Your task to perform on an android device: open wifi settings Image 0: 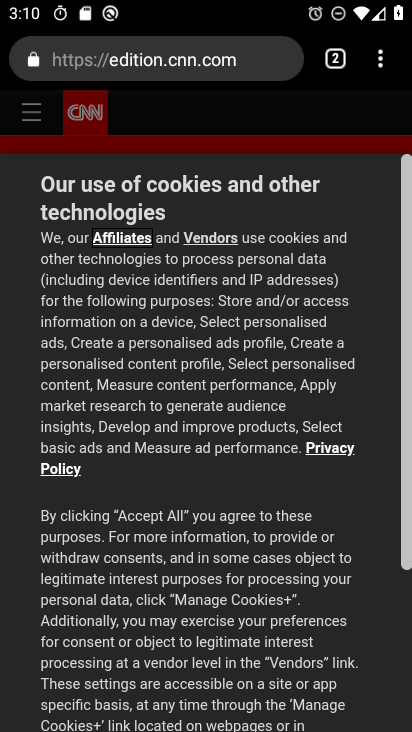
Step 0: press home button
Your task to perform on an android device: open wifi settings Image 1: 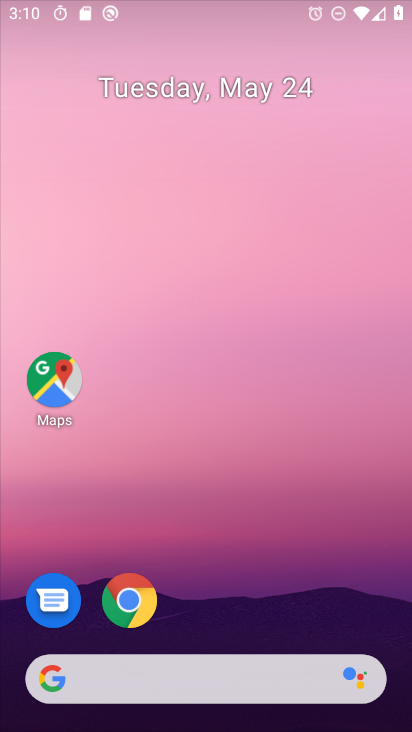
Step 1: drag from (251, 581) to (279, 63)
Your task to perform on an android device: open wifi settings Image 2: 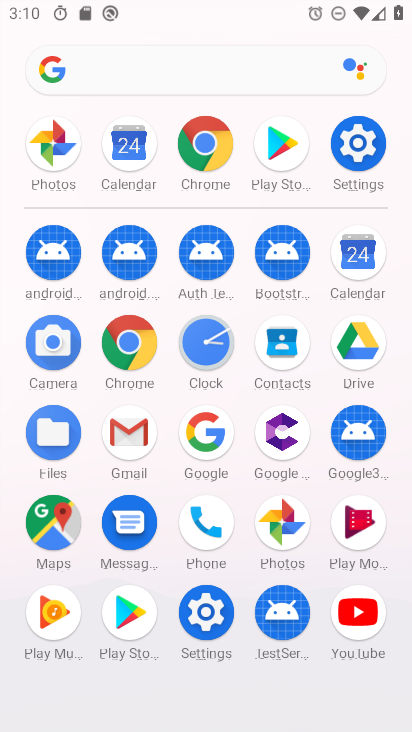
Step 2: click (372, 146)
Your task to perform on an android device: open wifi settings Image 3: 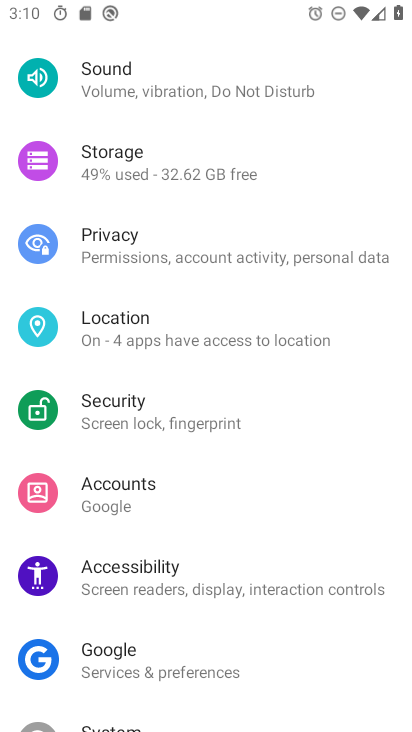
Step 3: drag from (160, 129) to (111, 677)
Your task to perform on an android device: open wifi settings Image 4: 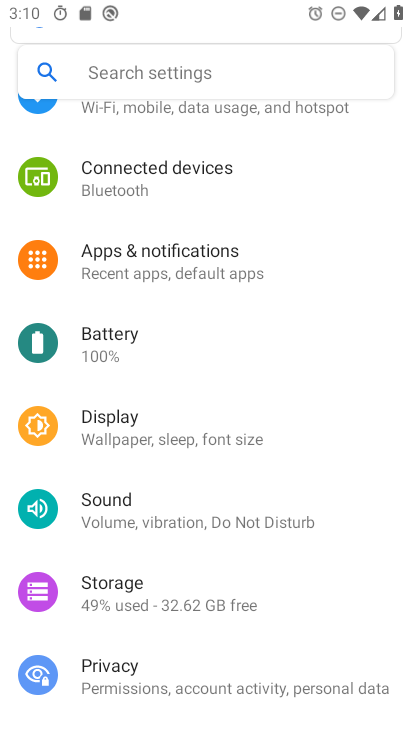
Step 4: click (128, 494)
Your task to perform on an android device: open wifi settings Image 5: 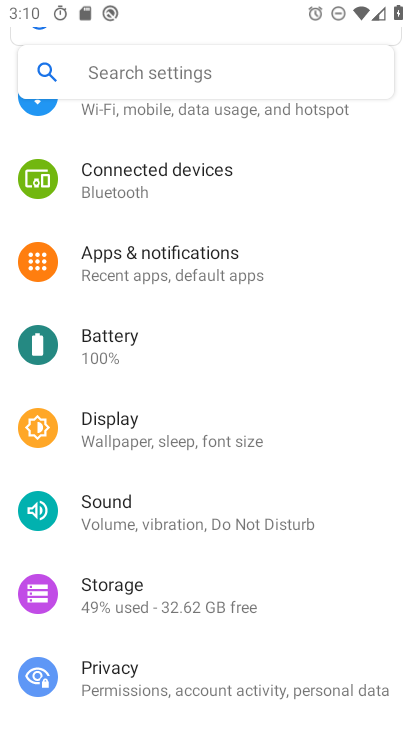
Step 5: drag from (178, 152) to (154, 487)
Your task to perform on an android device: open wifi settings Image 6: 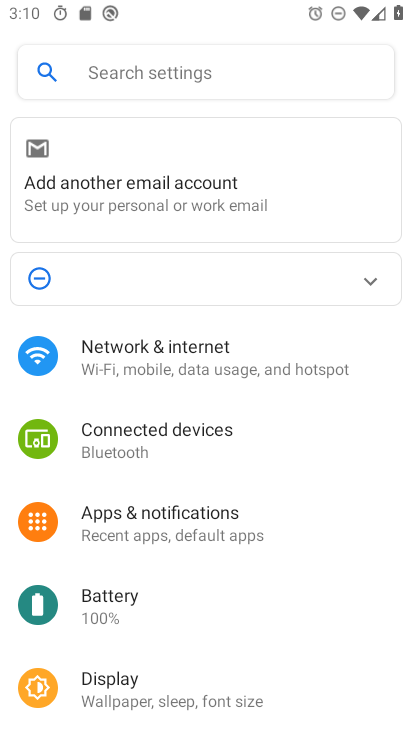
Step 6: click (105, 350)
Your task to perform on an android device: open wifi settings Image 7: 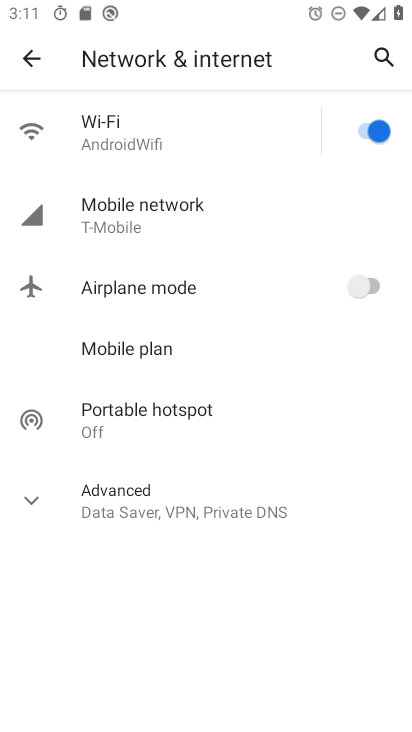
Step 7: click (137, 132)
Your task to perform on an android device: open wifi settings Image 8: 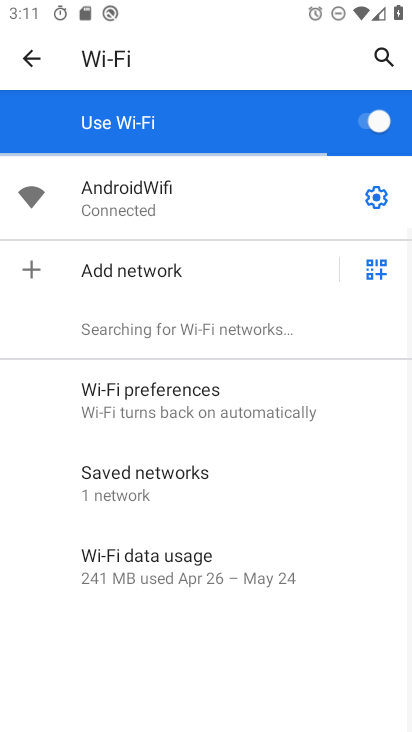
Step 8: click (367, 191)
Your task to perform on an android device: open wifi settings Image 9: 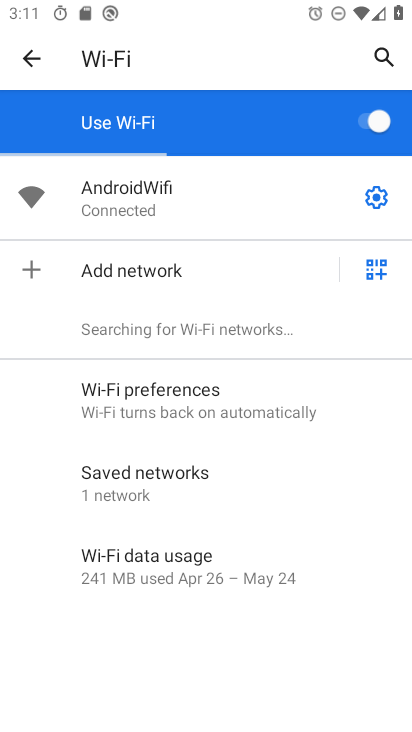
Step 9: click (374, 193)
Your task to perform on an android device: open wifi settings Image 10: 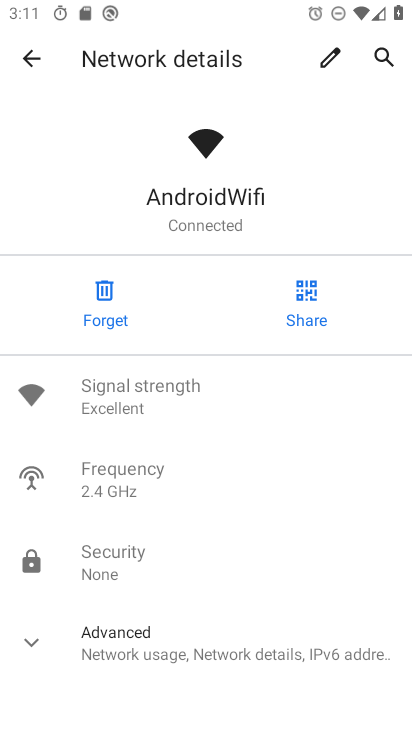
Step 10: task complete